Your task to perform on an android device: Go to display settings Image 0: 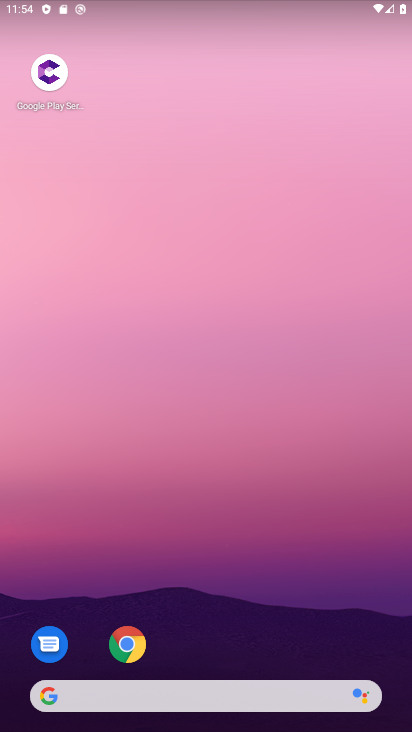
Step 0: drag from (223, 509) to (157, 95)
Your task to perform on an android device: Go to display settings Image 1: 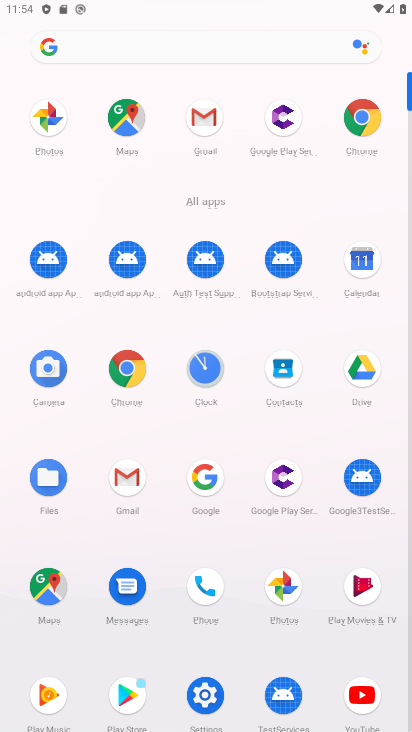
Step 1: click (210, 699)
Your task to perform on an android device: Go to display settings Image 2: 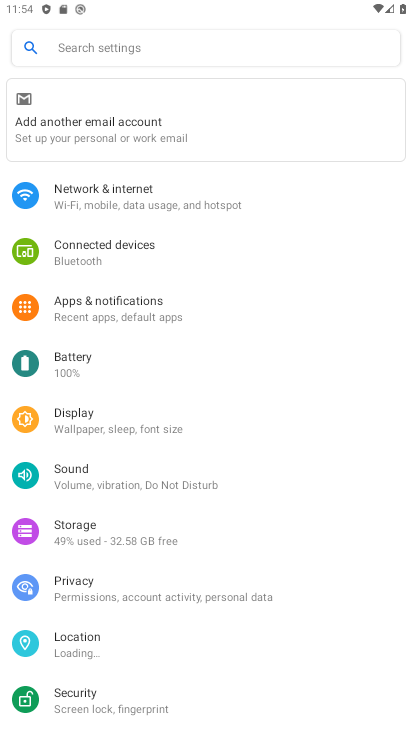
Step 2: click (107, 418)
Your task to perform on an android device: Go to display settings Image 3: 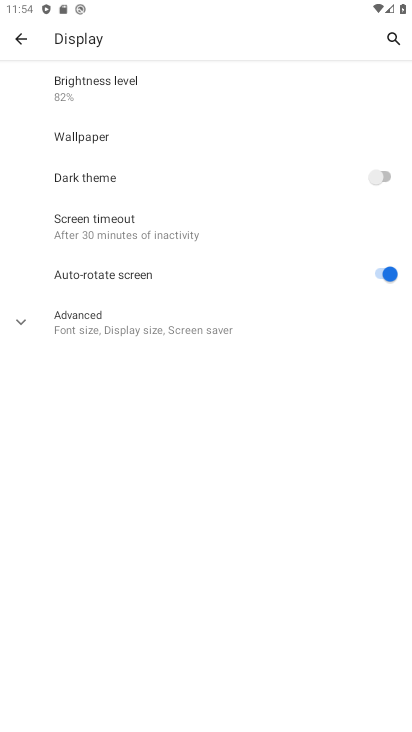
Step 3: task complete